Your task to perform on an android device: Open the calendar app, open the side menu, and click the "Day" option Image 0: 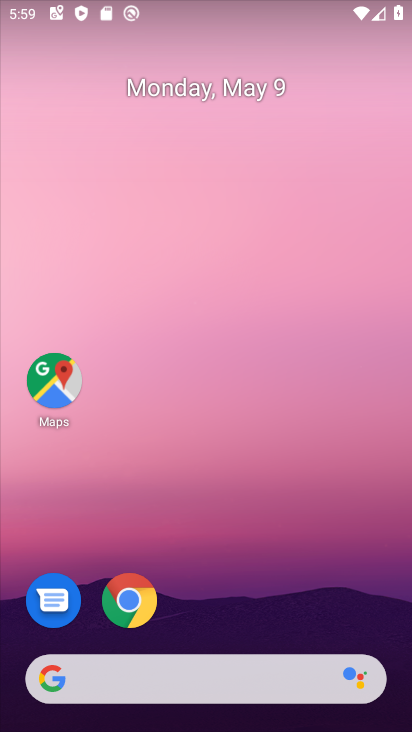
Step 0: drag from (217, 624) to (234, 25)
Your task to perform on an android device: Open the calendar app, open the side menu, and click the "Day" option Image 1: 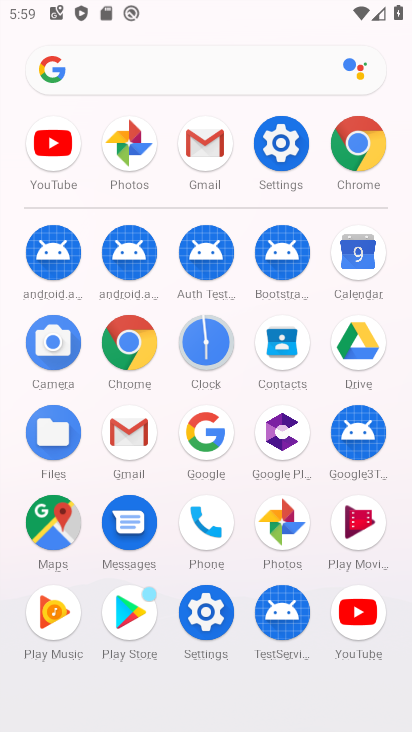
Step 1: click (358, 276)
Your task to perform on an android device: Open the calendar app, open the side menu, and click the "Day" option Image 2: 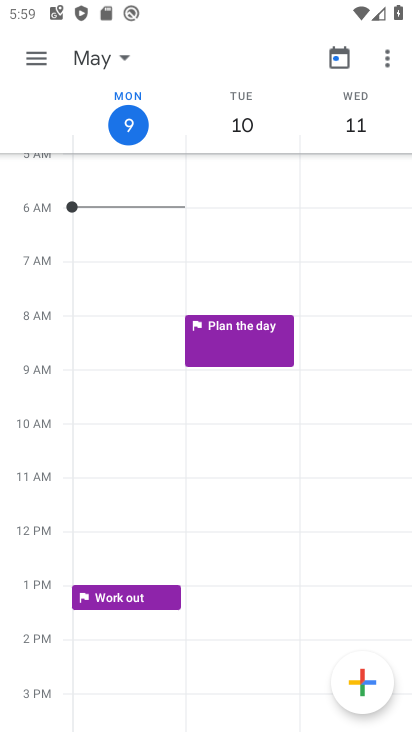
Step 2: click (50, 55)
Your task to perform on an android device: Open the calendar app, open the side menu, and click the "Day" option Image 3: 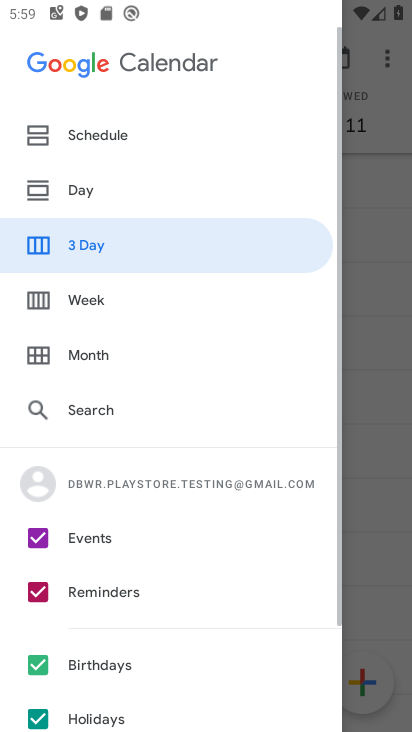
Step 3: click (83, 183)
Your task to perform on an android device: Open the calendar app, open the side menu, and click the "Day" option Image 4: 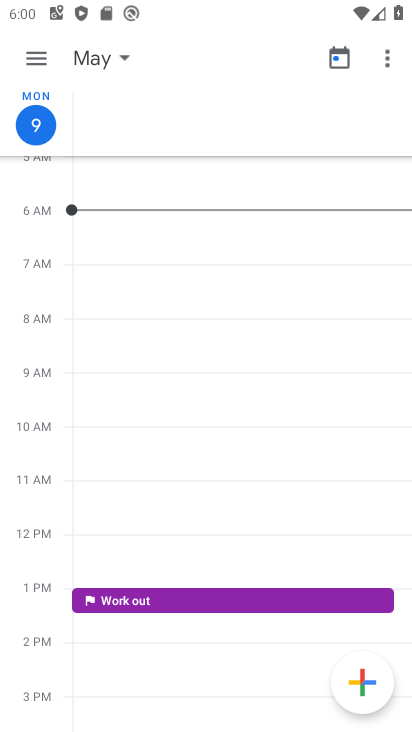
Step 4: task complete